Your task to perform on an android device: Go to Wikipedia Image 0: 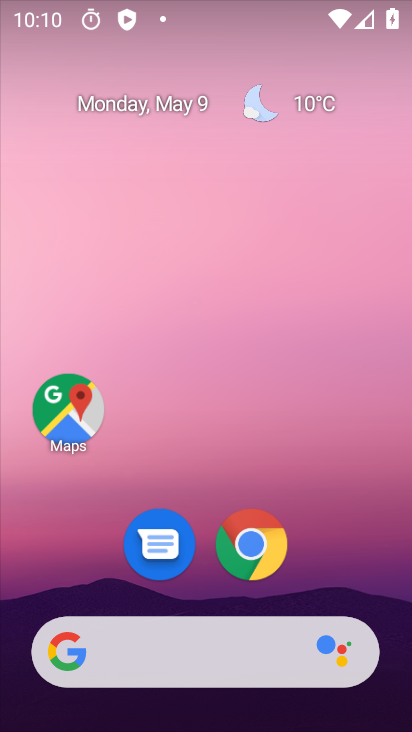
Step 0: drag from (390, 653) to (361, 211)
Your task to perform on an android device: Go to Wikipedia Image 1: 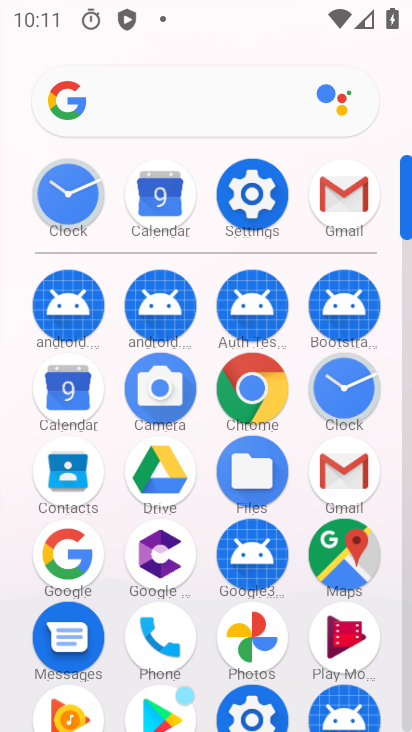
Step 1: click (252, 396)
Your task to perform on an android device: Go to Wikipedia Image 2: 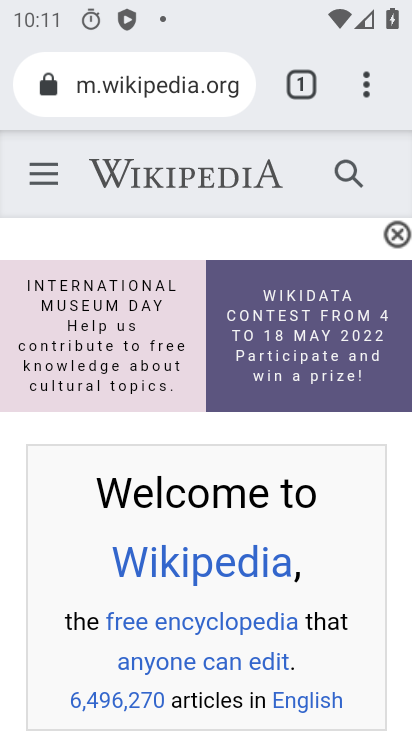
Step 2: click (237, 82)
Your task to perform on an android device: Go to Wikipedia Image 3: 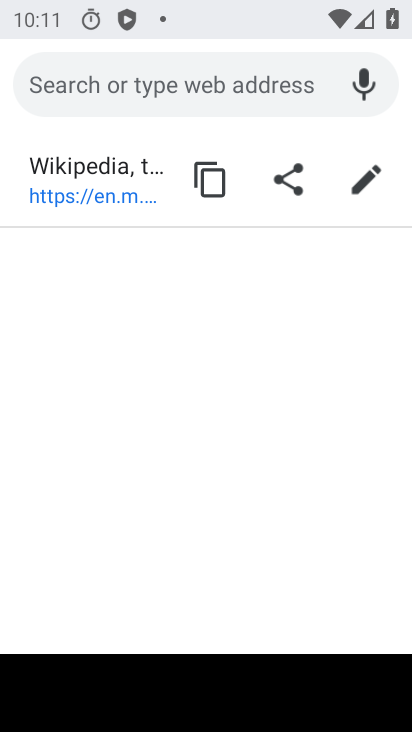
Step 3: task complete